Your task to perform on an android device: Open privacy settings Image 0: 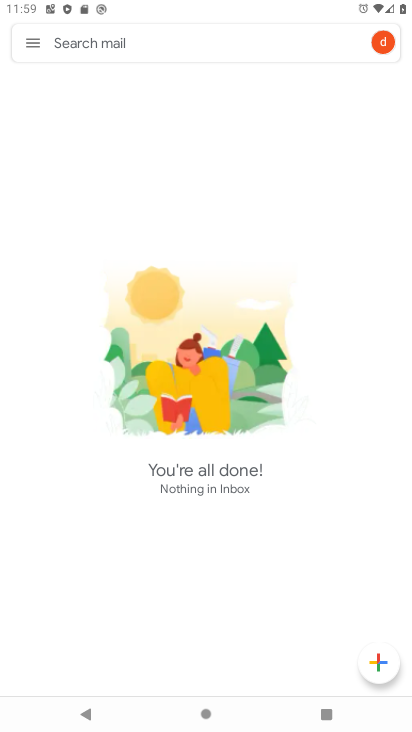
Step 0: press home button
Your task to perform on an android device: Open privacy settings Image 1: 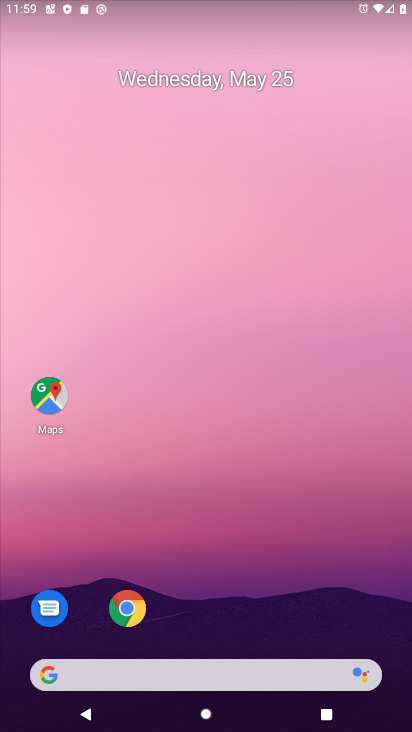
Step 1: drag from (218, 731) to (259, 209)
Your task to perform on an android device: Open privacy settings Image 2: 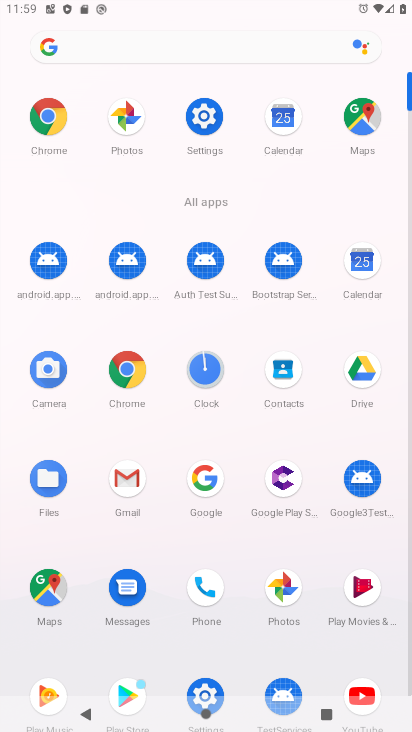
Step 2: click (211, 116)
Your task to perform on an android device: Open privacy settings Image 3: 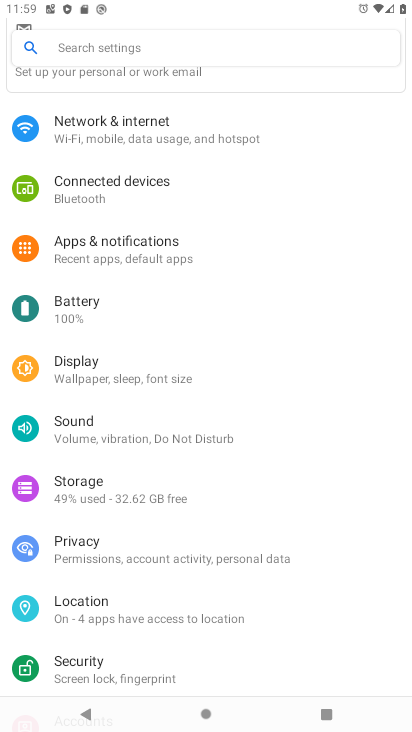
Step 3: click (80, 550)
Your task to perform on an android device: Open privacy settings Image 4: 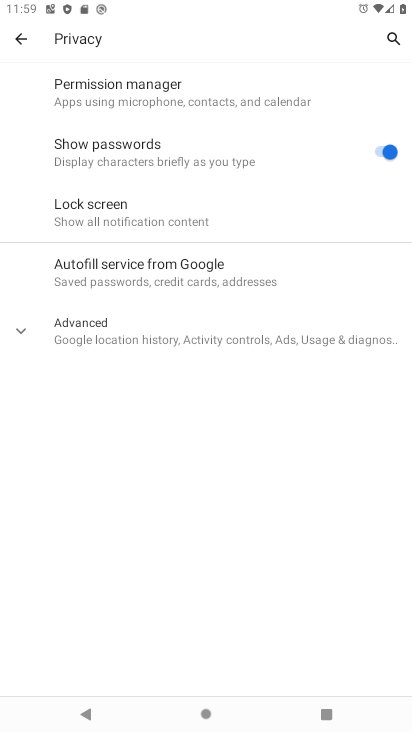
Step 4: click (76, 549)
Your task to perform on an android device: Open privacy settings Image 5: 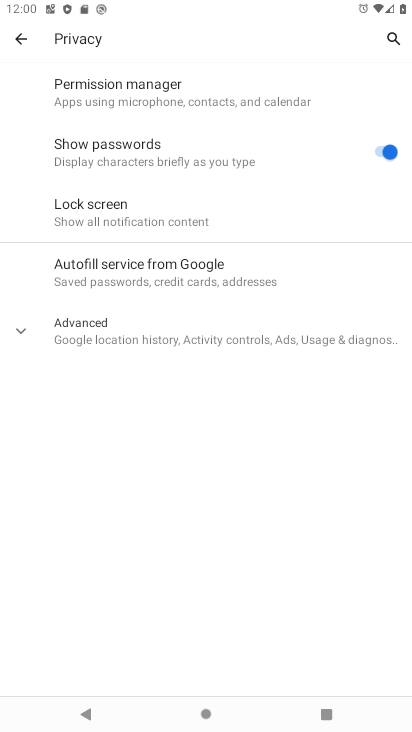
Step 5: task complete